Your task to perform on an android device: Search for pizza restaurants on Maps Image 0: 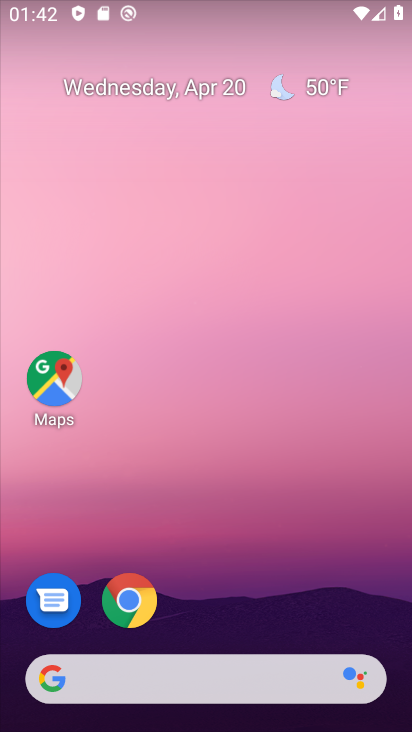
Step 0: click (69, 361)
Your task to perform on an android device: Search for pizza restaurants on Maps Image 1: 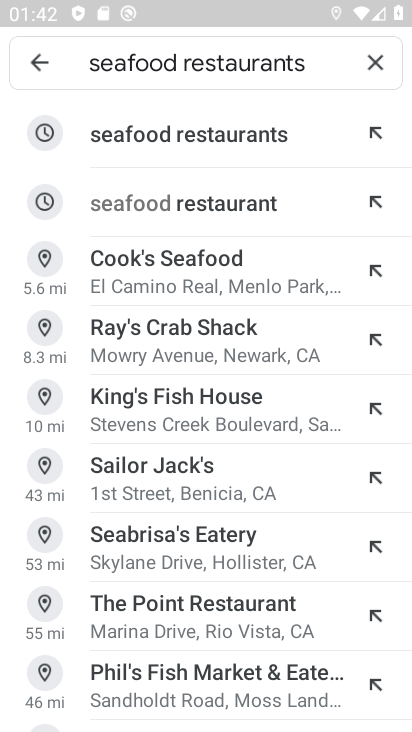
Step 1: click (383, 61)
Your task to perform on an android device: Search for pizza restaurants on Maps Image 2: 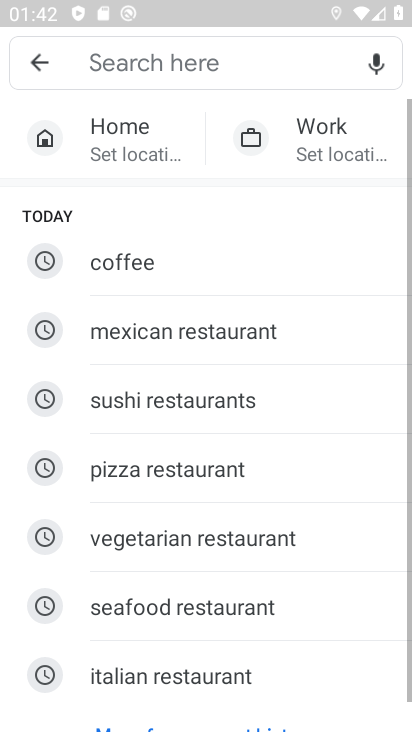
Step 2: click (232, 64)
Your task to perform on an android device: Search for pizza restaurants on Maps Image 3: 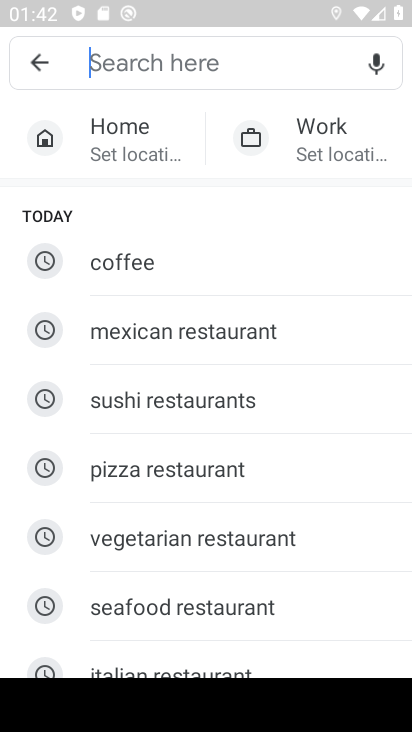
Step 3: type "pizza restaurants"
Your task to perform on an android device: Search for pizza restaurants on Maps Image 4: 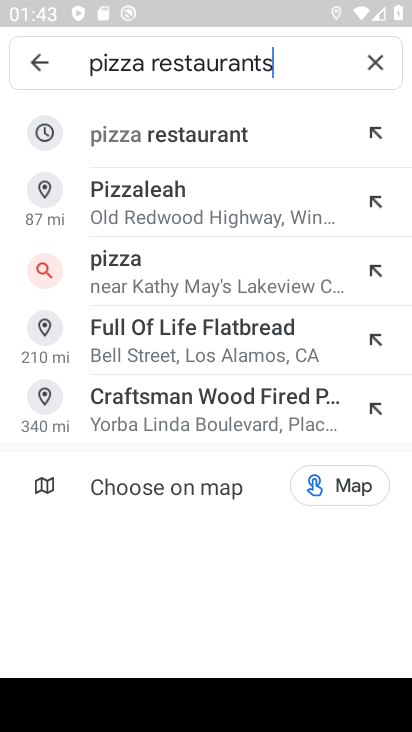
Step 4: task complete